Your task to perform on an android device: change timer sound Image 0: 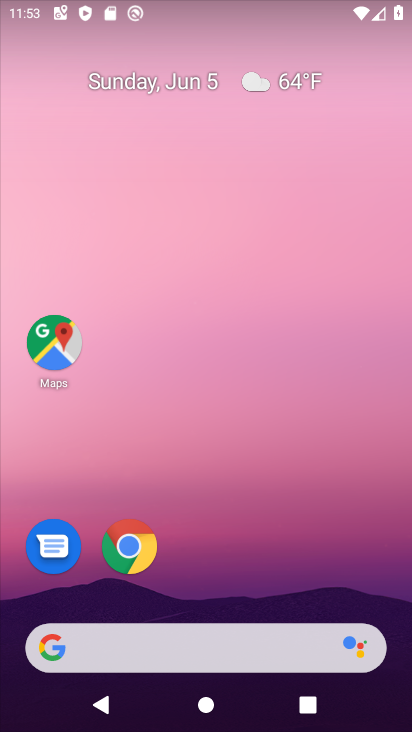
Step 0: drag from (191, 586) to (222, 255)
Your task to perform on an android device: change timer sound Image 1: 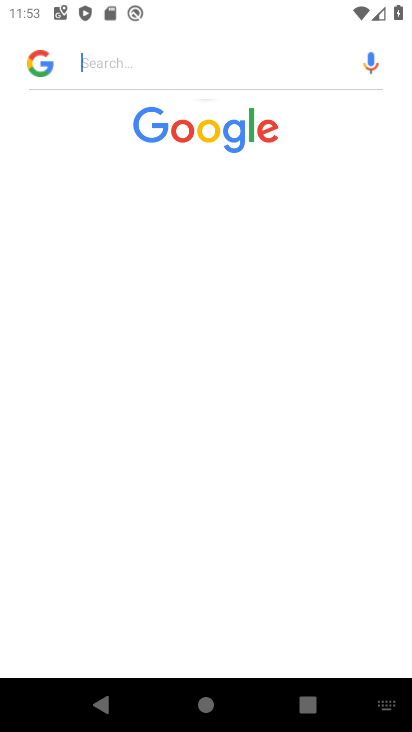
Step 1: press home button
Your task to perform on an android device: change timer sound Image 2: 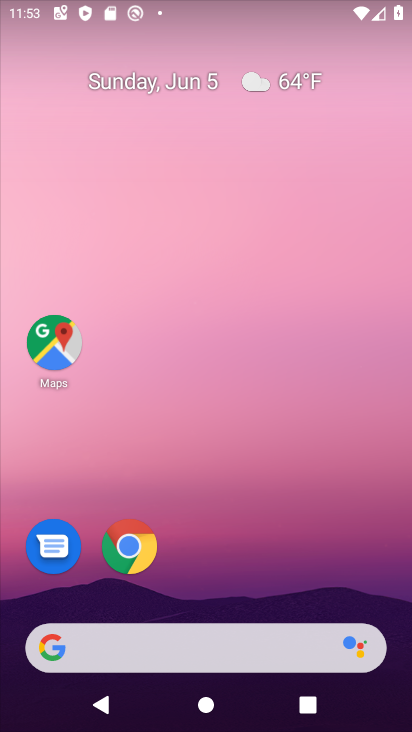
Step 2: drag from (245, 394) to (269, 147)
Your task to perform on an android device: change timer sound Image 3: 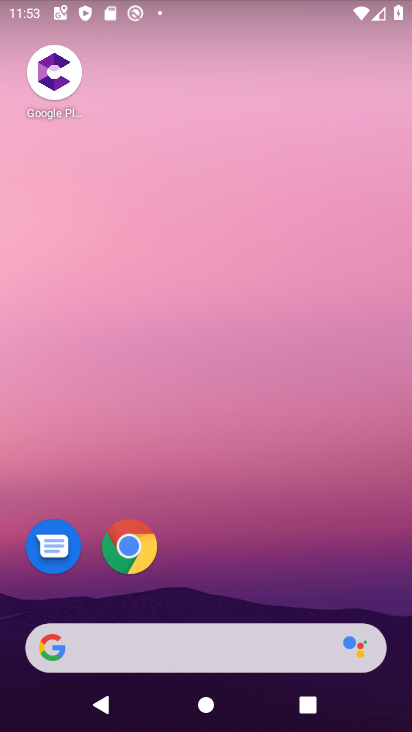
Step 3: drag from (215, 395) to (213, 234)
Your task to perform on an android device: change timer sound Image 4: 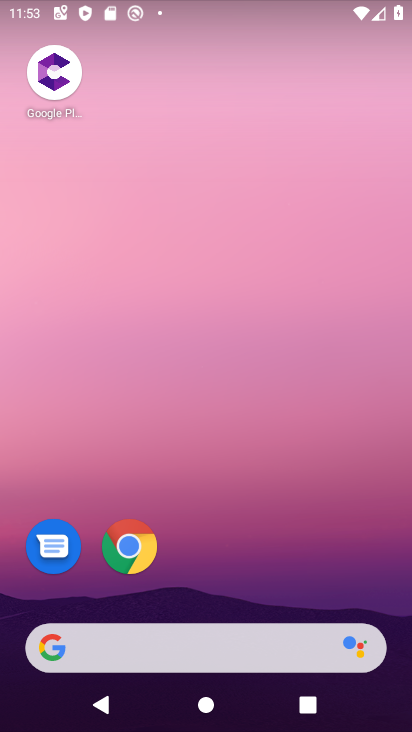
Step 4: drag from (236, 557) to (247, 130)
Your task to perform on an android device: change timer sound Image 5: 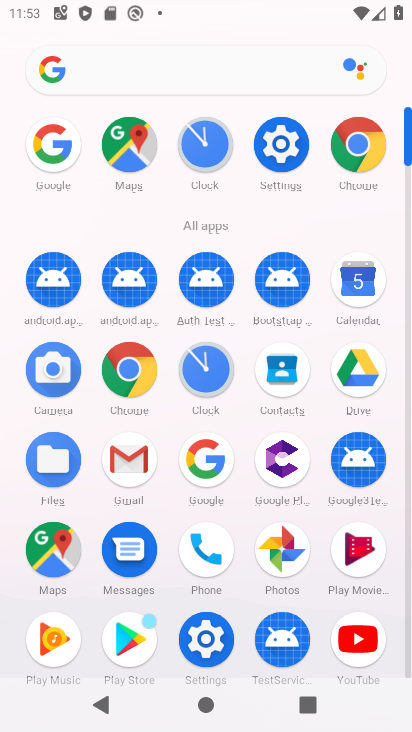
Step 5: click (196, 366)
Your task to perform on an android device: change timer sound Image 6: 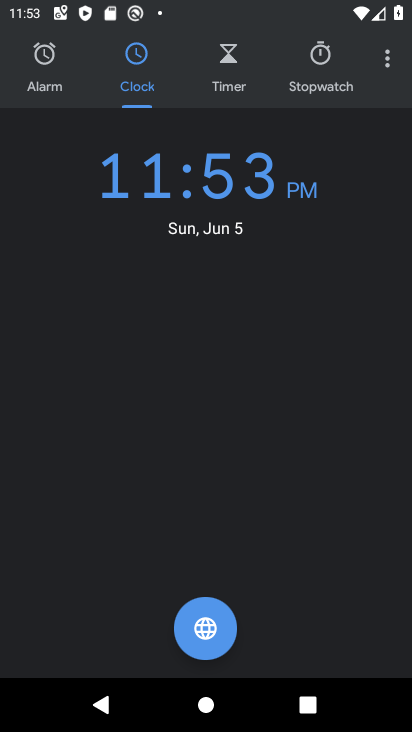
Step 6: click (384, 55)
Your task to perform on an android device: change timer sound Image 7: 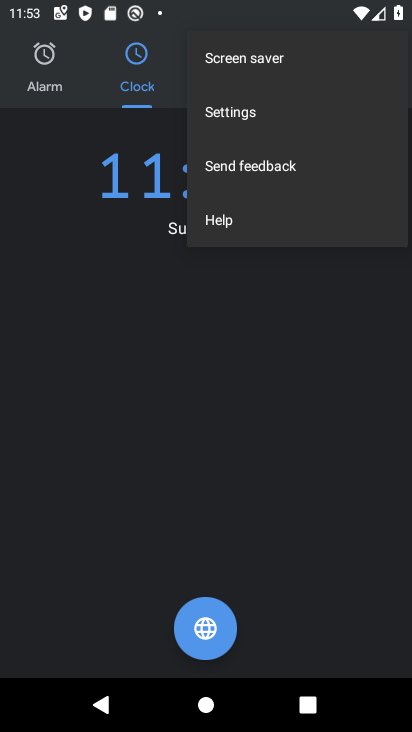
Step 7: click (237, 123)
Your task to perform on an android device: change timer sound Image 8: 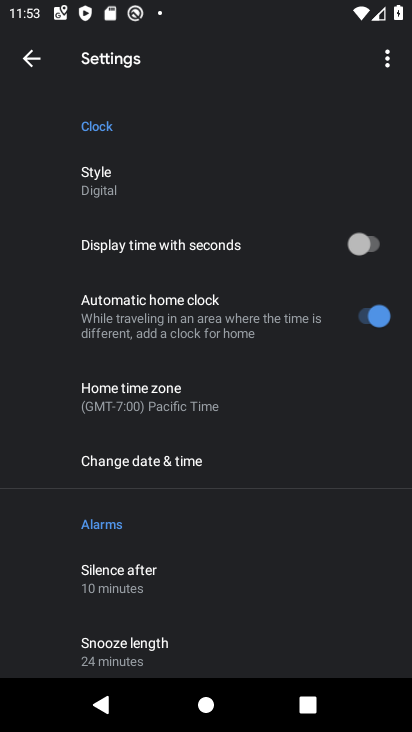
Step 8: click (149, 599)
Your task to perform on an android device: change timer sound Image 9: 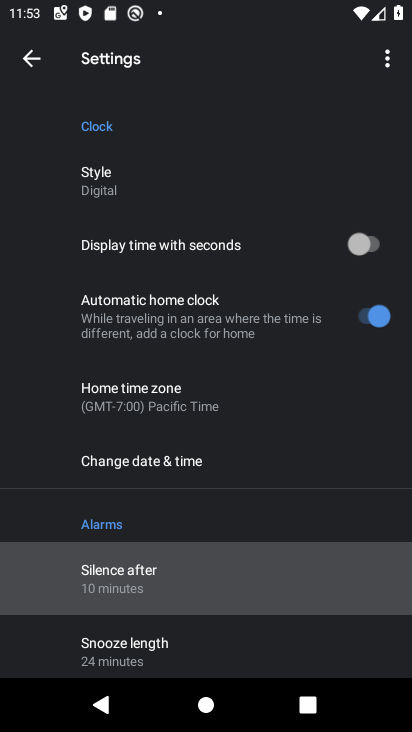
Step 9: drag from (149, 584) to (204, 180)
Your task to perform on an android device: change timer sound Image 10: 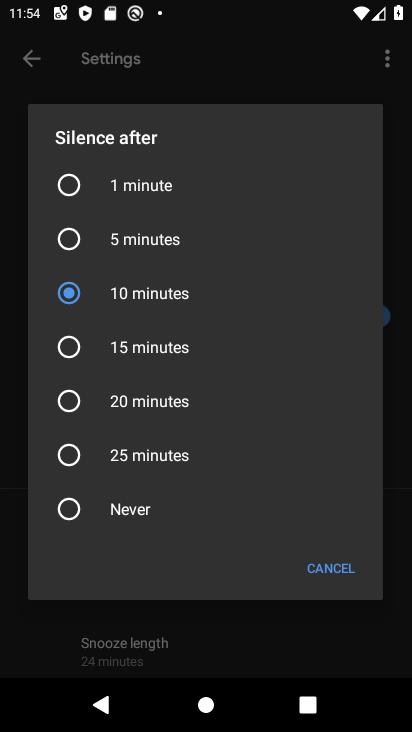
Step 10: click (336, 570)
Your task to perform on an android device: change timer sound Image 11: 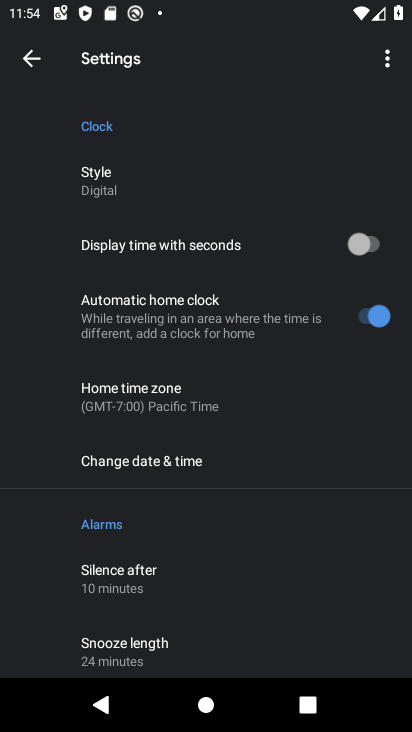
Step 11: drag from (237, 582) to (266, 247)
Your task to perform on an android device: change timer sound Image 12: 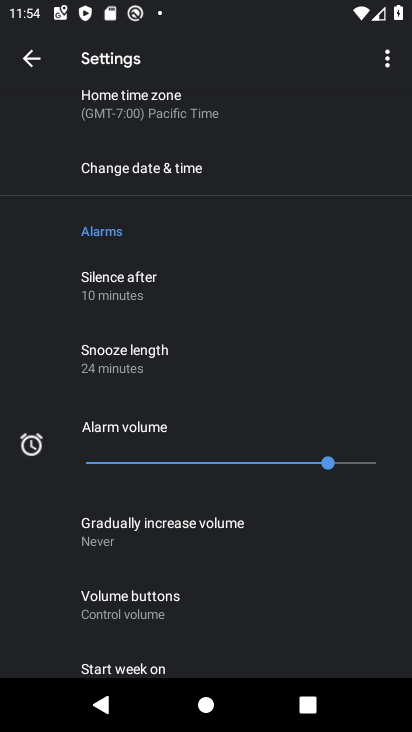
Step 12: drag from (176, 620) to (224, 316)
Your task to perform on an android device: change timer sound Image 13: 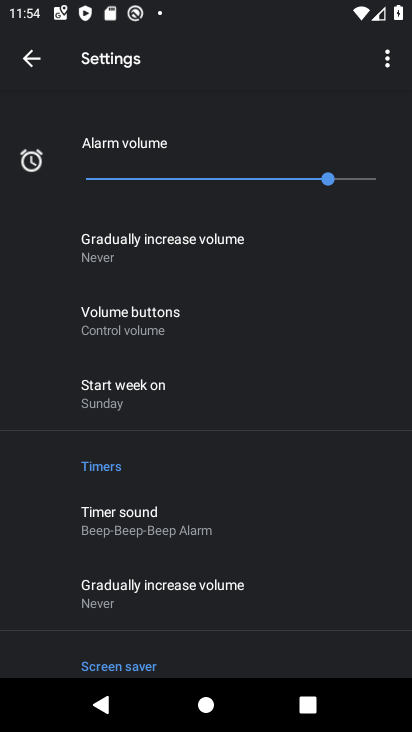
Step 13: click (145, 519)
Your task to perform on an android device: change timer sound Image 14: 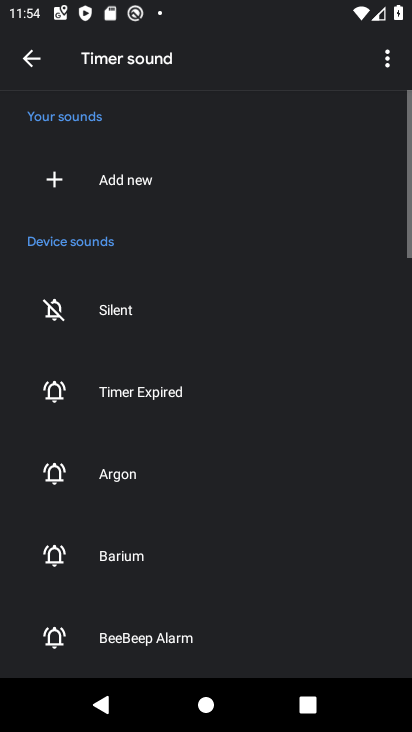
Step 14: click (136, 312)
Your task to perform on an android device: change timer sound Image 15: 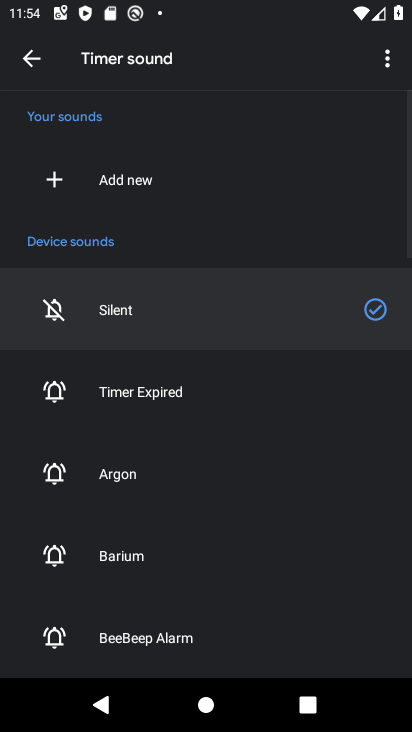
Step 15: task complete